Your task to perform on an android device: Open settings Image 0: 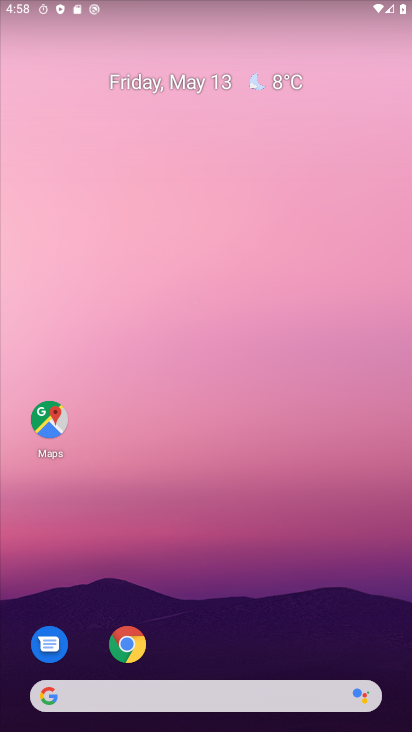
Step 0: drag from (207, 661) to (266, 154)
Your task to perform on an android device: Open settings Image 1: 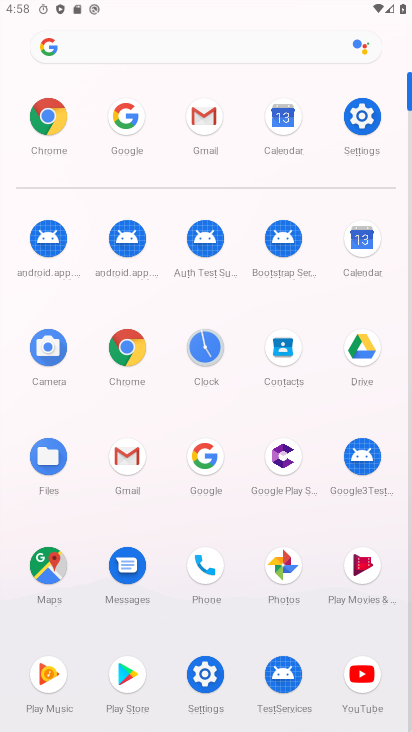
Step 1: click (367, 117)
Your task to perform on an android device: Open settings Image 2: 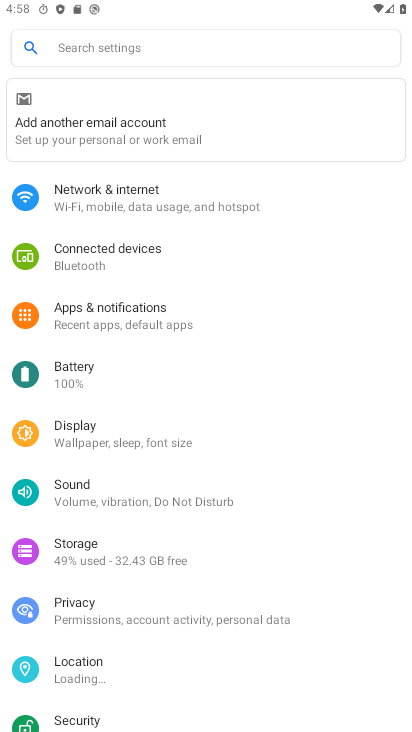
Step 2: task complete